Your task to perform on an android device: Open display settings Image 0: 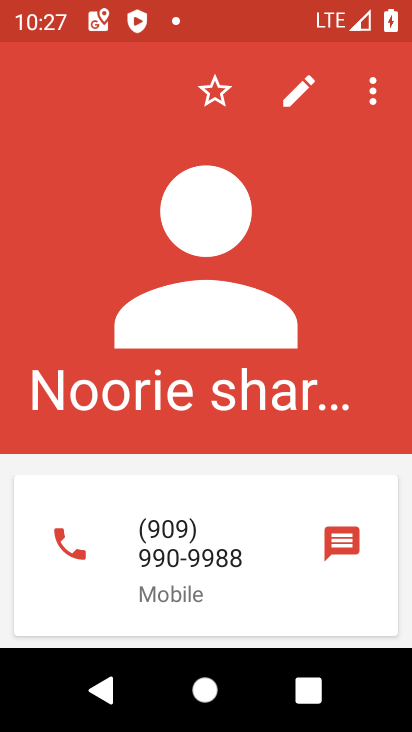
Step 0: drag from (193, 395) to (193, 96)
Your task to perform on an android device: Open display settings Image 1: 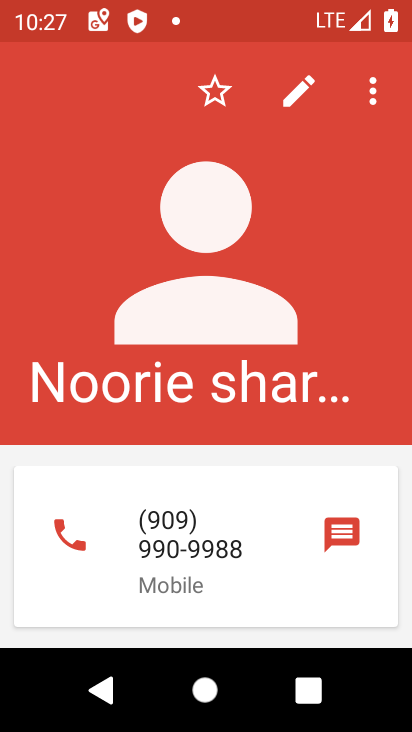
Step 1: press home button
Your task to perform on an android device: Open display settings Image 2: 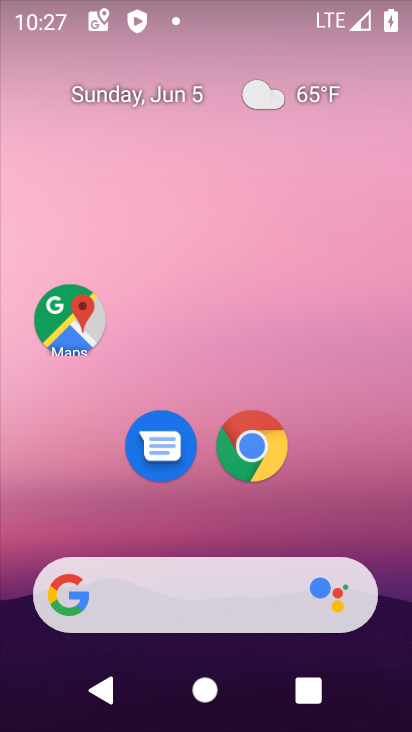
Step 2: drag from (188, 524) to (170, 125)
Your task to perform on an android device: Open display settings Image 3: 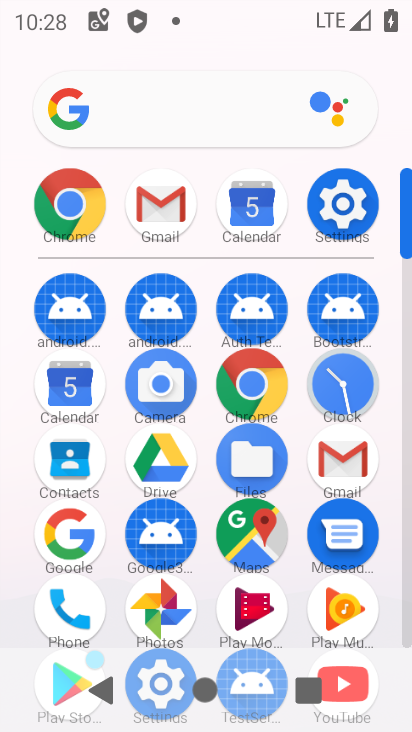
Step 3: click (344, 209)
Your task to perform on an android device: Open display settings Image 4: 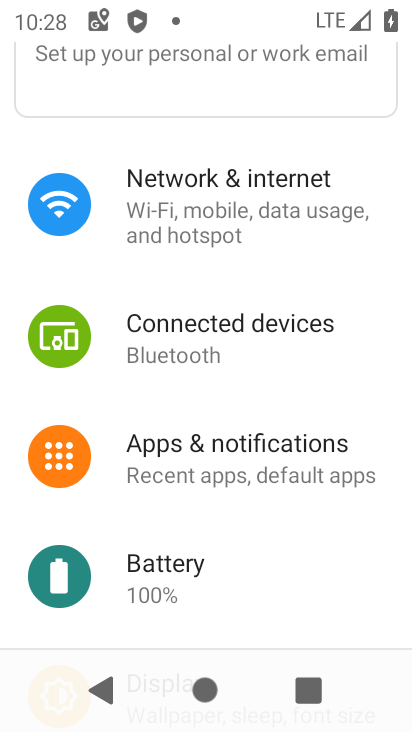
Step 4: drag from (214, 581) to (192, 299)
Your task to perform on an android device: Open display settings Image 5: 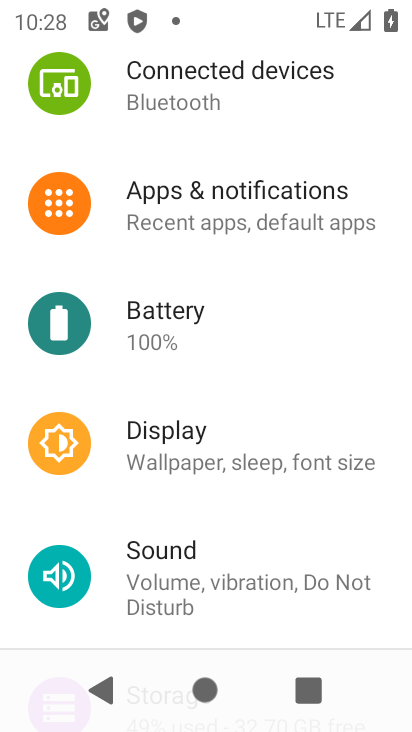
Step 5: click (178, 475)
Your task to perform on an android device: Open display settings Image 6: 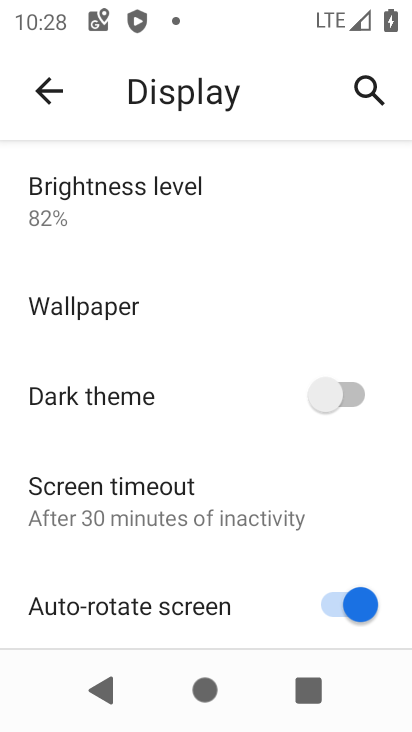
Step 6: task complete